Your task to perform on an android device: When is my next appointment? Image 0: 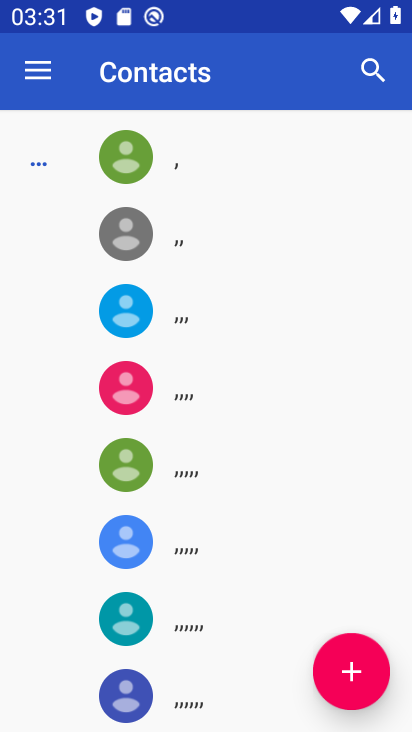
Step 0: press home button
Your task to perform on an android device: When is my next appointment? Image 1: 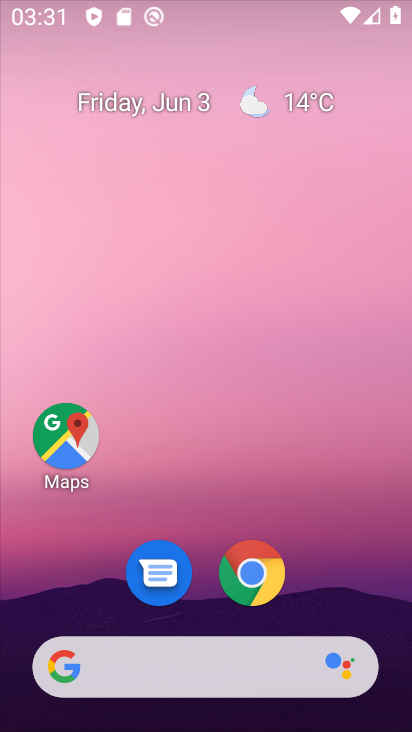
Step 1: drag from (228, 649) to (195, 67)
Your task to perform on an android device: When is my next appointment? Image 2: 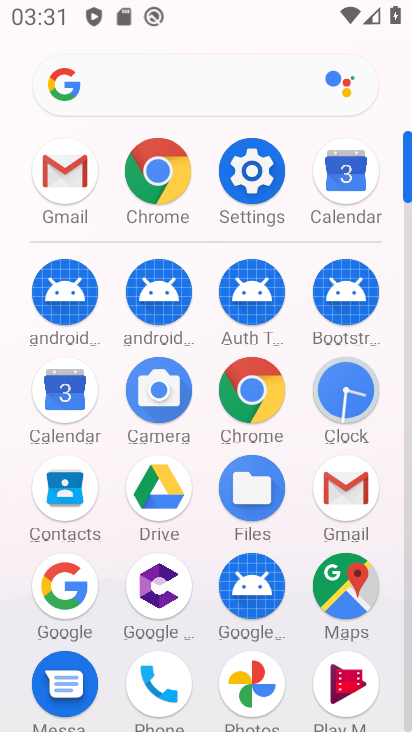
Step 2: click (84, 386)
Your task to perform on an android device: When is my next appointment? Image 3: 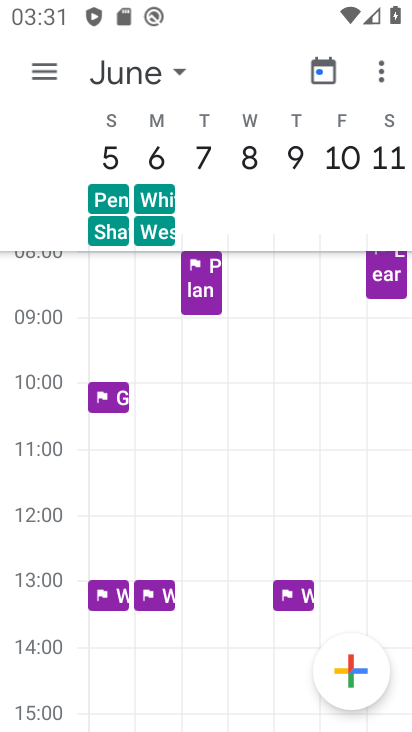
Step 3: click (177, 70)
Your task to perform on an android device: When is my next appointment? Image 4: 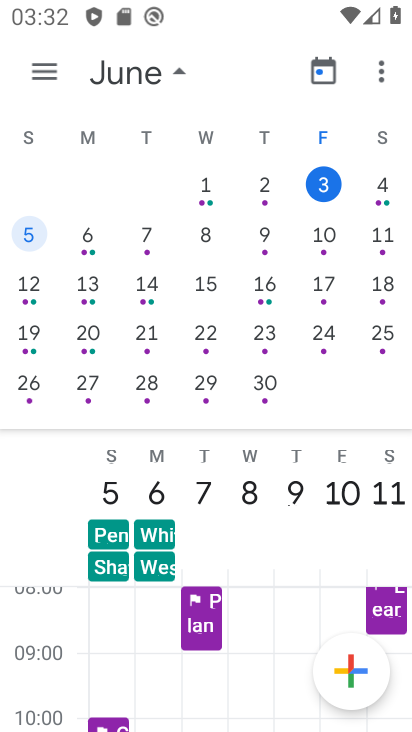
Step 4: click (368, 186)
Your task to perform on an android device: When is my next appointment? Image 5: 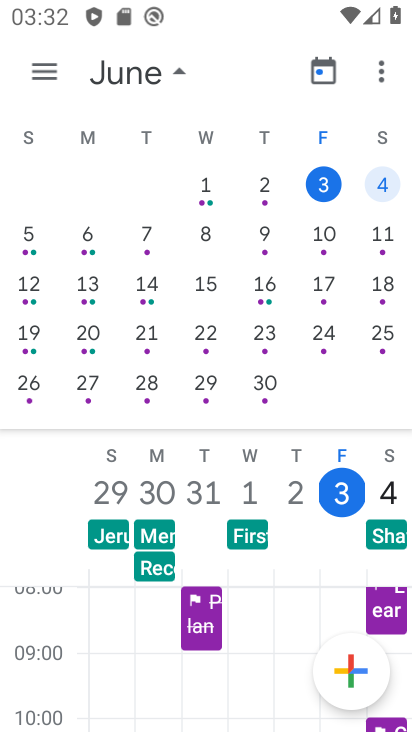
Step 5: task complete